Your task to perform on an android device: turn notification dots on Image 0: 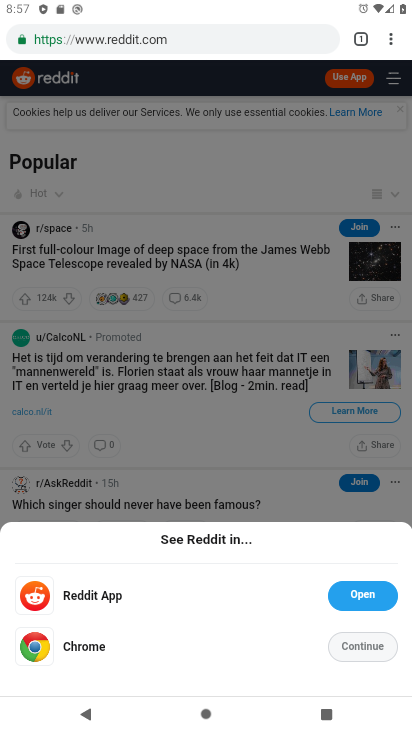
Step 0: press home button
Your task to perform on an android device: turn notification dots on Image 1: 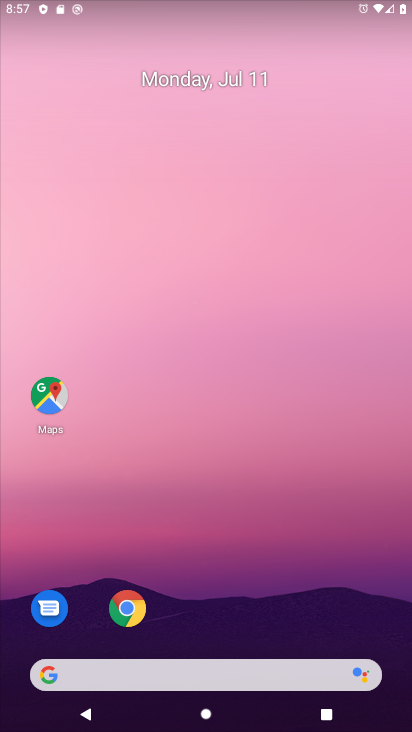
Step 1: drag from (214, 477) to (189, 12)
Your task to perform on an android device: turn notification dots on Image 2: 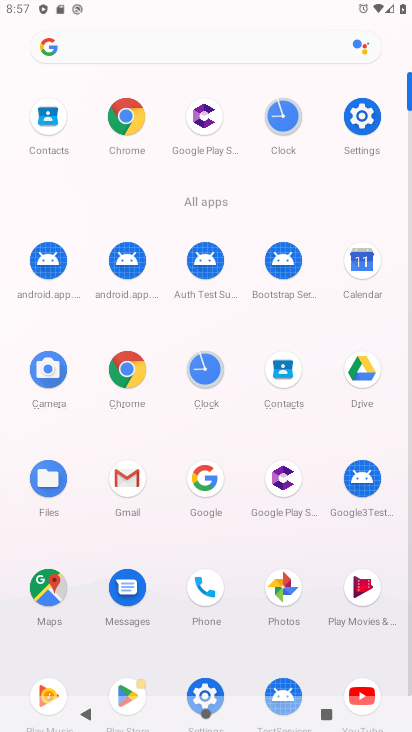
Step 2: click (369, 100)
Your task to perform on an android device: turn notification dots on Image 3: 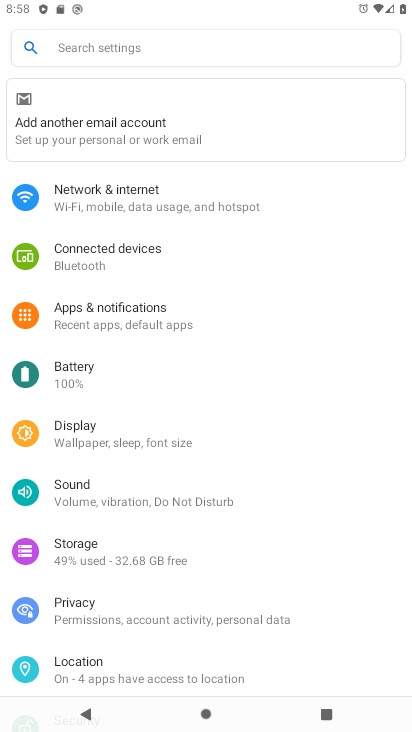
Step 3: click (89, 293)
Your task to perform on an android device: turn notification dots on Image 4: 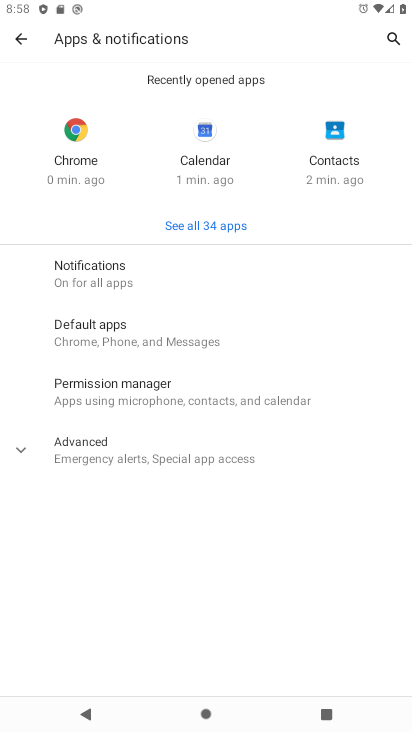
Step 4: click (91, 284)
Your task to perform on an android device: turn notification dots on Image 5: 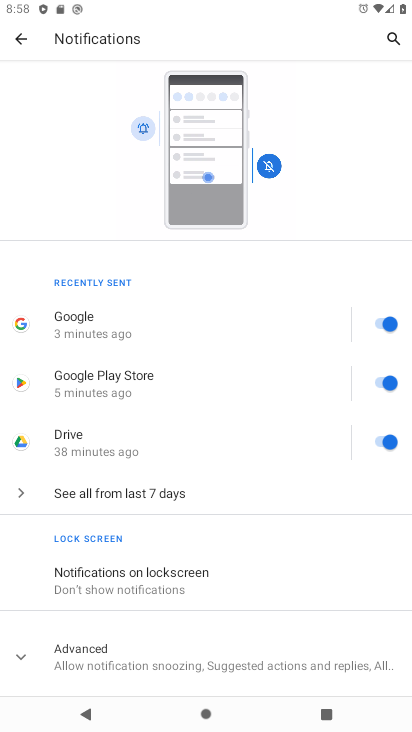
Step 5: drag from (312, 574) to (277, 301)
Your task to perform on an android device: turn notification dots on Image 6: 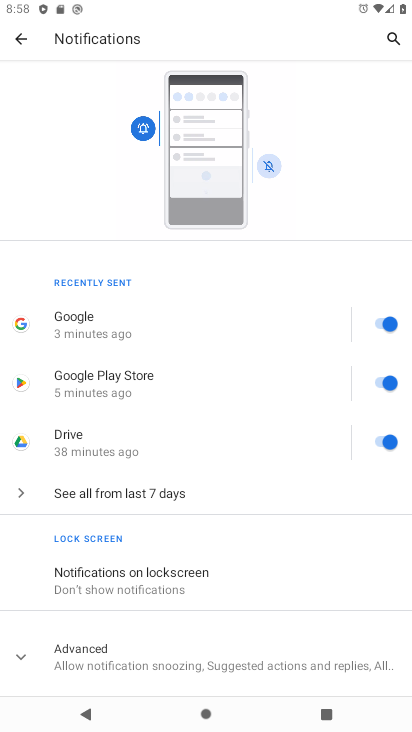
Step 6: click (75, 656)
Your task to perform on an android device: turn notification dots on Image 7: 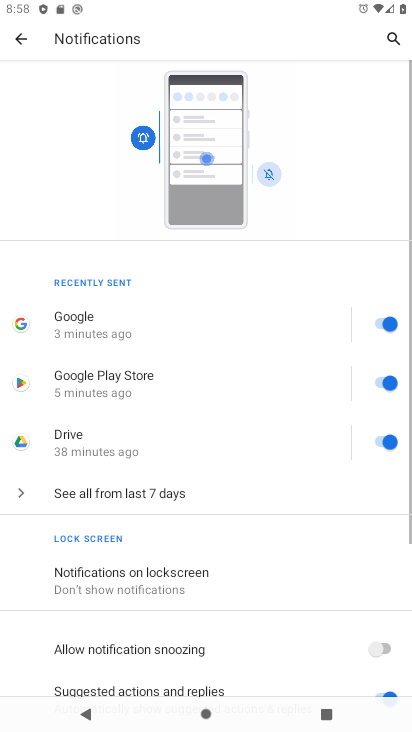
Step 7: task complete